Your task to perform on an android device: Open wifi settings Image 0: 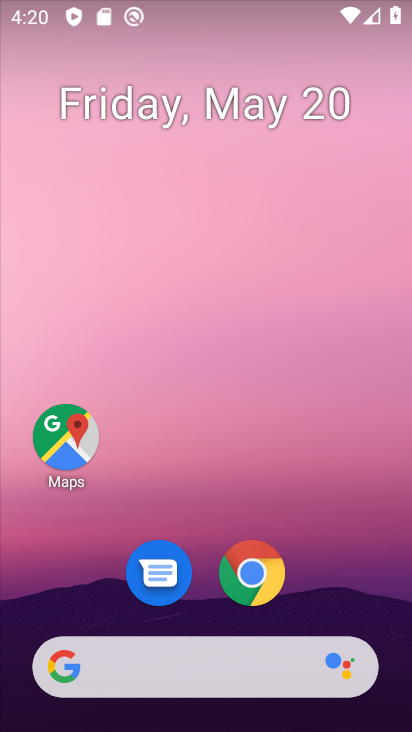
Step 0: drag from (375, 681) to (202, 74)
Your task to perform on an android device: Open wifi settings Image 1: 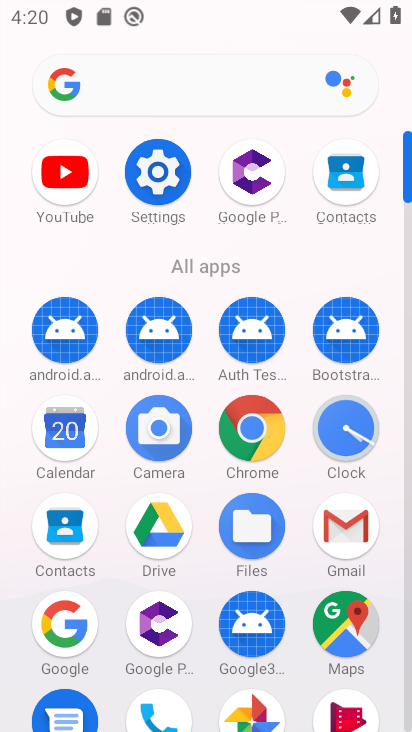
Step 1: click (149, 167)
Your task to perform on an android device: Open wifi settings Image 2: 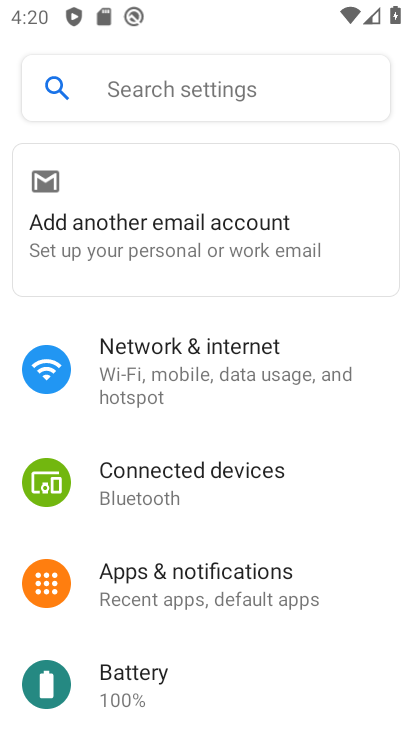
Step 2: click (202, 361)
Your task to perform on an android device: Open wifi settings Image 3: 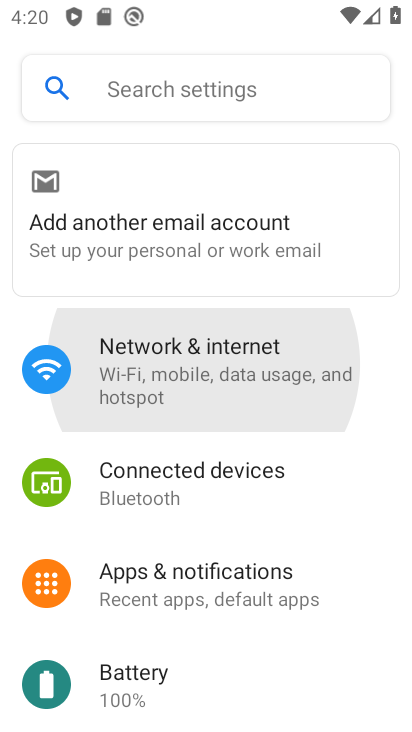
Step 3: click (202, 361)
Your task to perform on an android device: Open wifi settings Image 4: 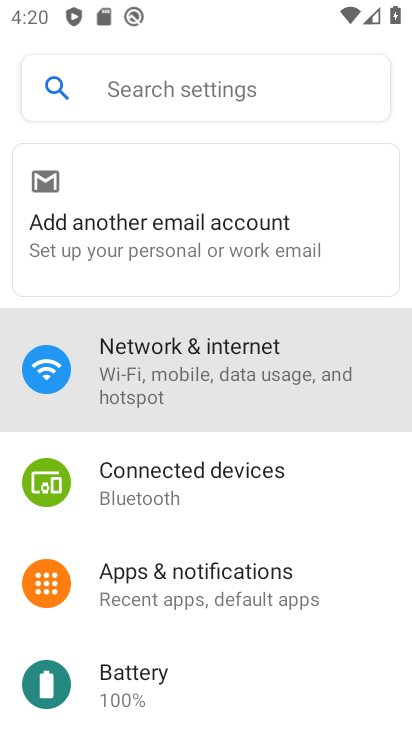
Step 4: click (202, 361)
Your task to perform on an android device: Open wifi settings Image 5: 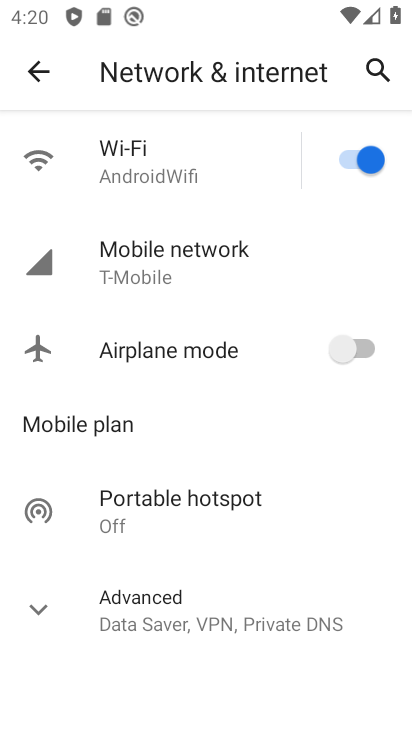
Step 5: task complete